Your task to perform on an android device: Check the news Image 0: 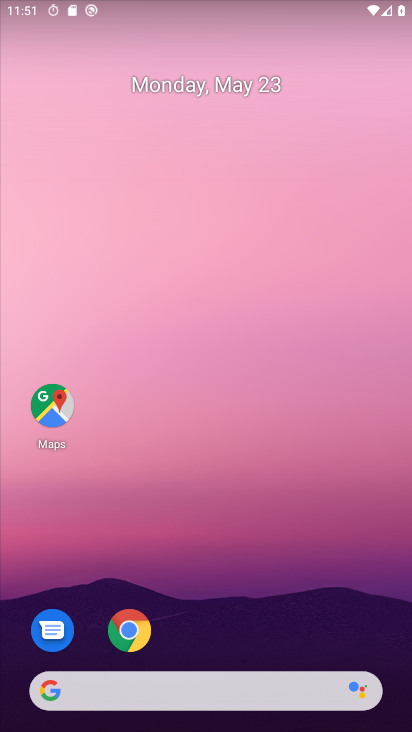
Step 0: drag from (218, 664) to (187, 23)
Your task to perform on an android device: Check the news Image 1: 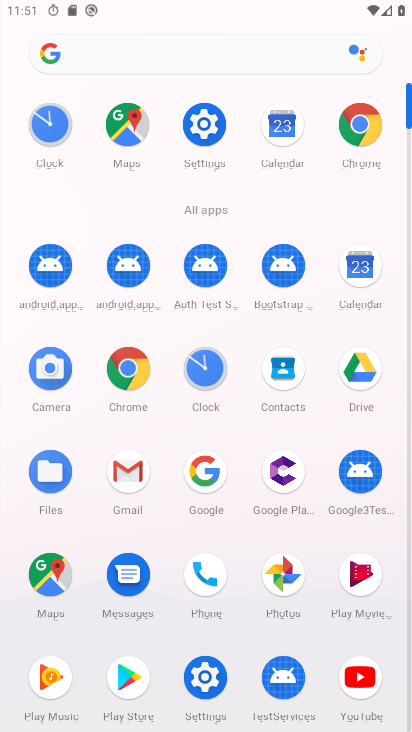
Step 1: click (220, 51)
Your task to perform on an android device: Check the news Image 2: 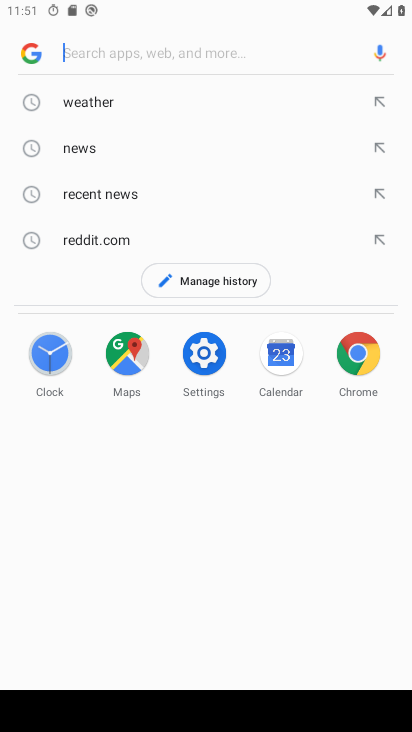
Step 2: click (86, 146)
Your task to perform on an android device: Check the news Image 3: 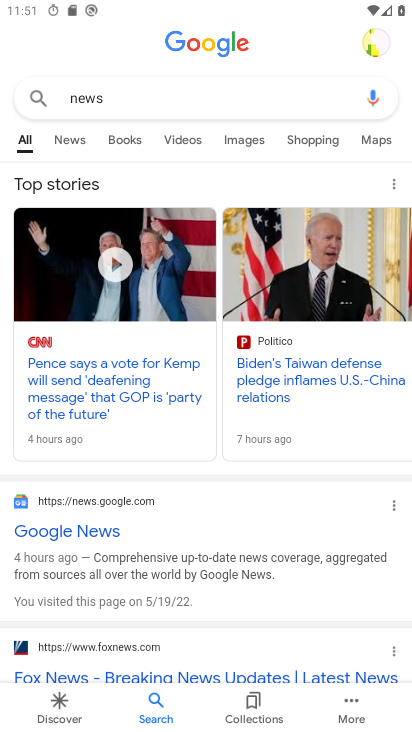
Step 3: task complete